Your task to perform on an android device: Clear all items from cart on bestbuy. Add "logitech g910" to the cart on bestbuy Image 0: 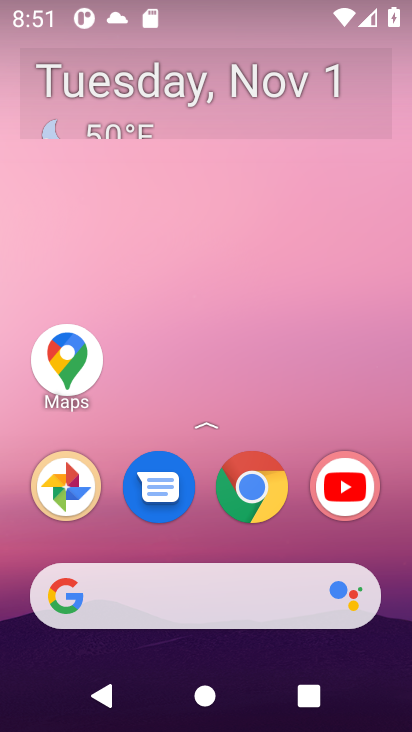
Step 0: drag from (206, 455) to (220, 37)
Your task to perform on an android device: Clear all items from cart on bestbuy. Add "logitech g910" to the cart on bestbuy Image 1: 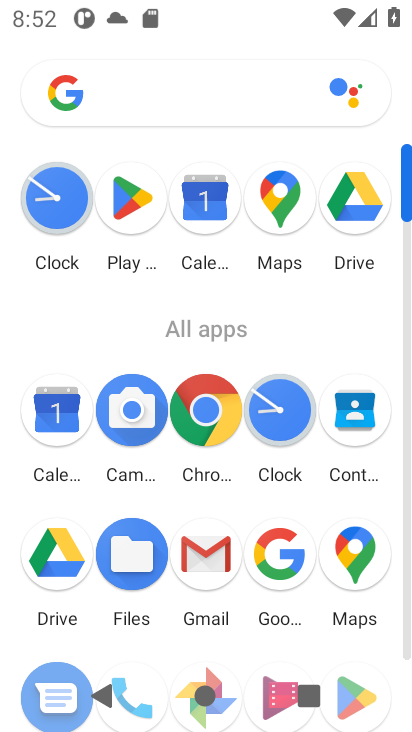
Step 1: click (198, 407)
Your task to perform on an android device: Clear all items from cart on bestbuy. Add "logitech g910" to the cart on bestbuy Image 2: 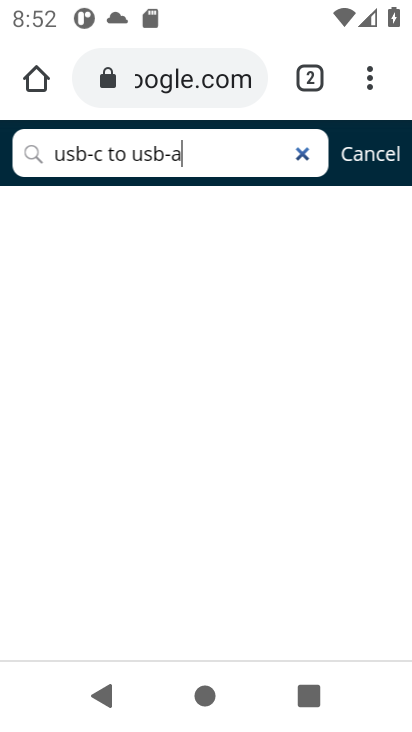
Step 2: click (209, 80)
Your task to perform on an android device: Clear all items from cart on bestbuy. Add "logitech g910" to the cart on bestbuy Image 3: 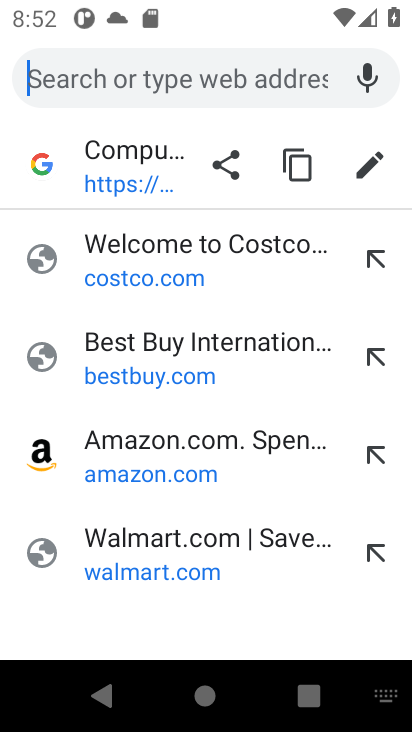
Step 3: click (91, 79)
Your task to perform on an android device: Clear all items from cart on bestbuy. Add "logitech g910" to the cart on bestbuy Image 4: 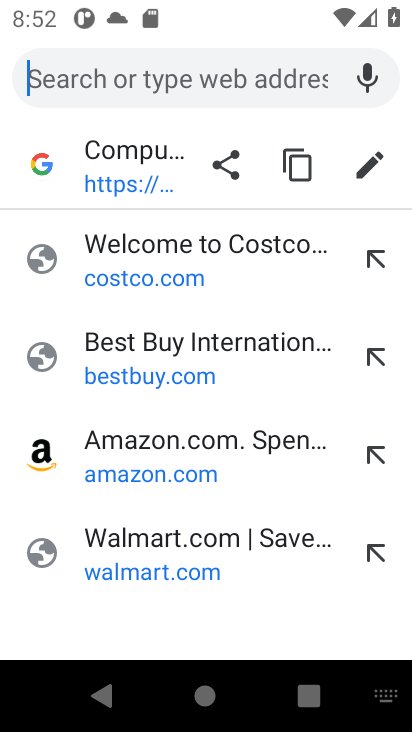
Step 4: type "bestbuy"
Your task to perform on an android device: Clear all items from cart on bestbuy. Add "logitech g910" to the cart on bestbuy Image 5: 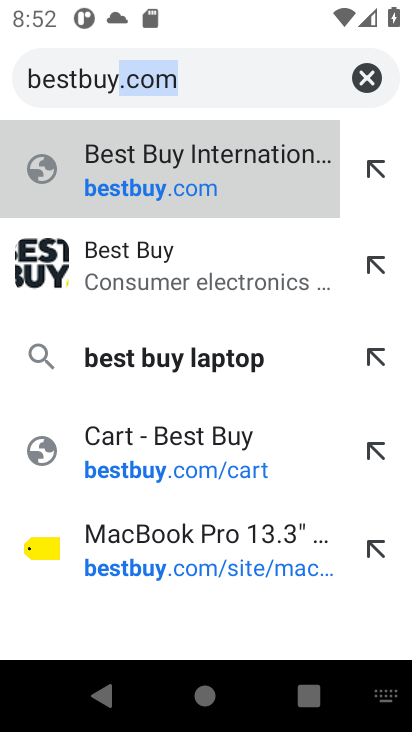
Step 5: click (185, 182)
Your task to perform on an android device: Clear all items from cart on bestbuy. Add "logitech g910" to the cart on bestbuy Image 6: 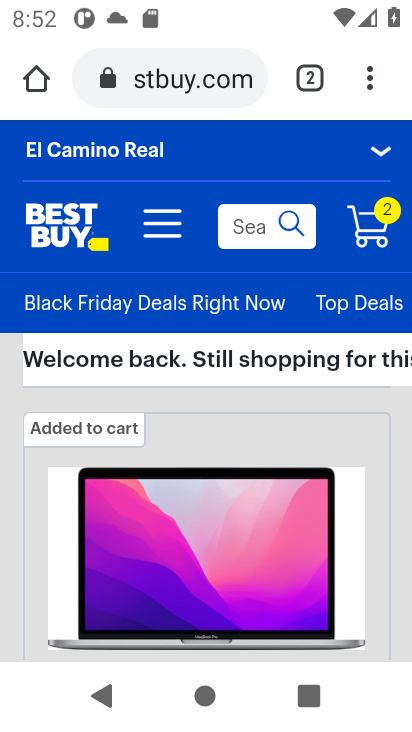
Step 6: drag from (238, 443) to (203, 101)
Your task to perform on an android device: Clear all items from cart on bestbuy. Add "logitech g910" to the cart on bestbuy Image 7: 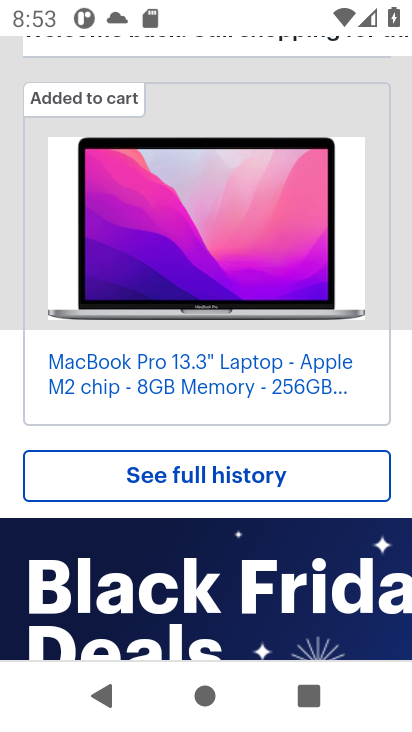
Step 7: drag from (229, 589) to (208, 339)
Your task to perform on an android device: Clear all items from cart on bestbuy. Add "logitech g910" to the cart on bestbuy Image 8: 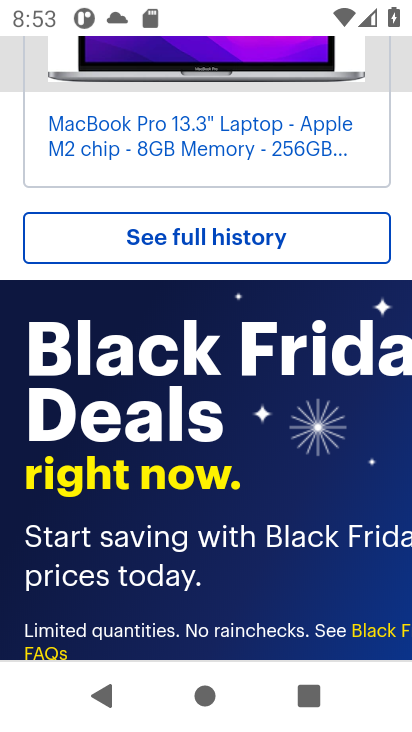
Step 8: drag from (244, 599) to (227, 315)
Your task to perform on an android device: Clear all items from cart on bestbuy. Add "logitech g910" to the cart on bestbuy Image 9: 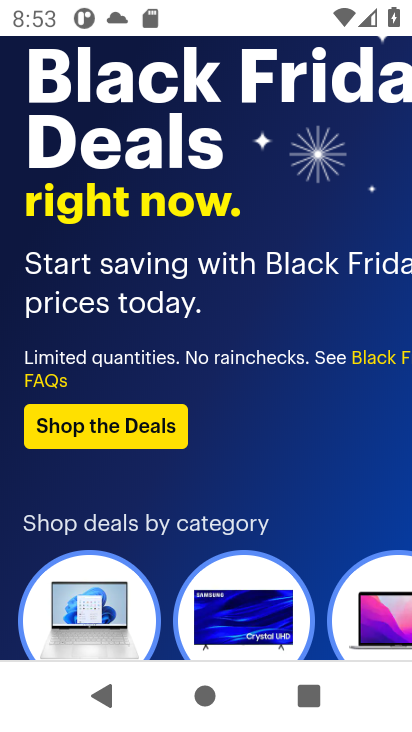
Step 9: drag from (219, 211) to (237, 682)
Your task to perform on an android device: Clear all items from cart on bestbuy. Add "logitech g910" to the cart on bestbuy Image 10: 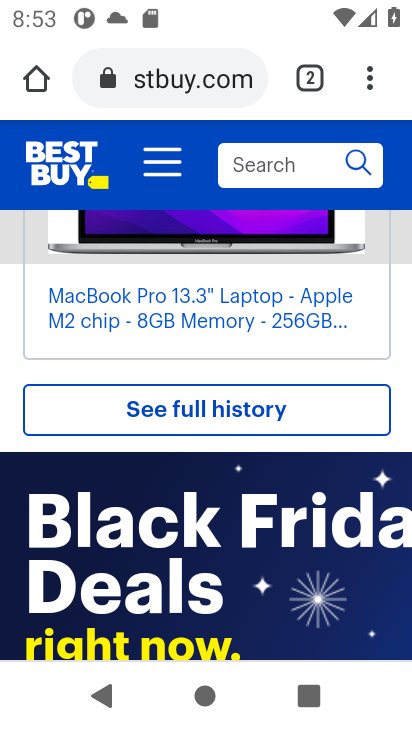
Step 10: click (277, 162)
Your task to perform on an android device: Clear all items from cart on bestbuy. Add "logitech g910" to the cart on bestbuy Image 11: 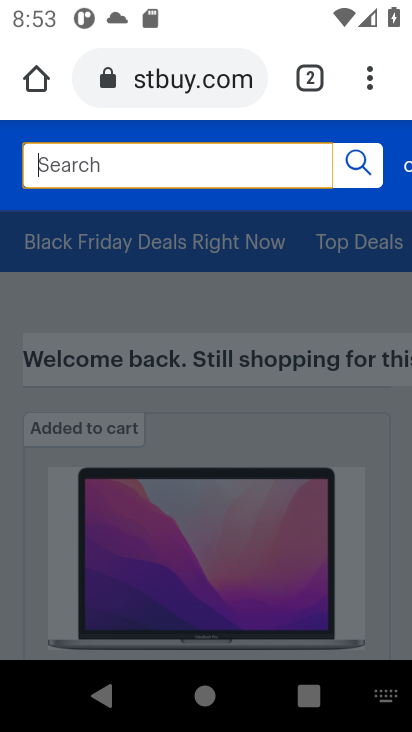
Step 11: click (102, 164)
Your task to perform on an android device: Clear all items from cart on bestbuy. Add "logitech g910" to the cart on bestbuy Image 12: 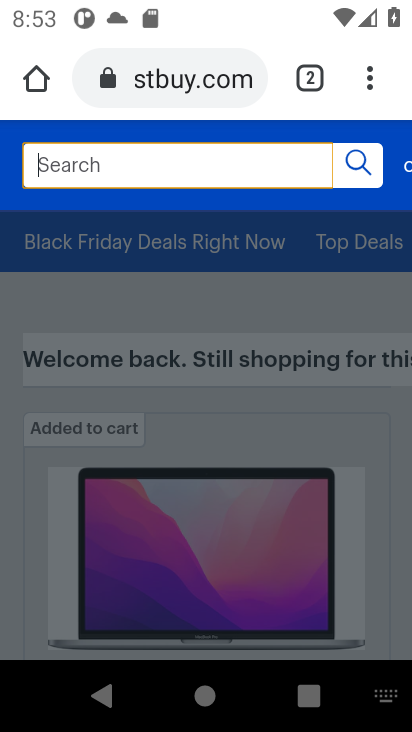
Step 12: type "logitech g910"
Your task to perform on an android device: Clear all items from cart on bestbuy. Add "logitech g910" to the cart on bestbuy Image 13: 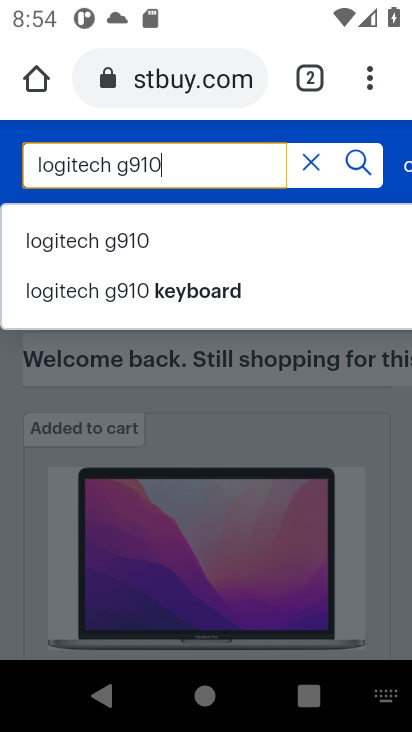
Step 13: click (121, 244)
Your task to perform on an android device: Clear all items from cart on bestbuy. Add "logitech g910" to the cart on bestbuy Image 14: 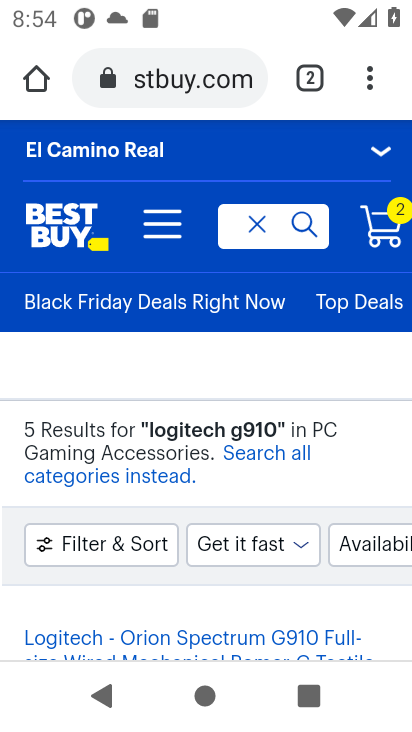
Step 14: drag from (188, 591) to (189, 293)
Your task to perform on an android device: Clear all items from cart on bestbuy. Add "logitech g910" to the cart on bestbuy Image 15: 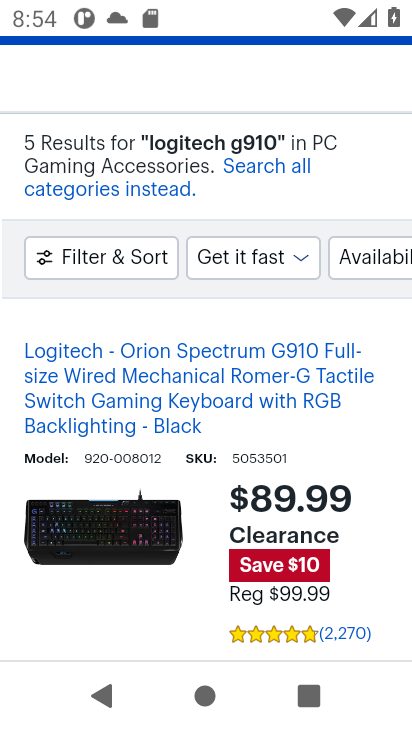
Step 15: click (200, 376)
Your task to perform on an android device: Clear all items from cart on bestbuy. Add "logitech g910" to the cart on bestbuy Image 16: 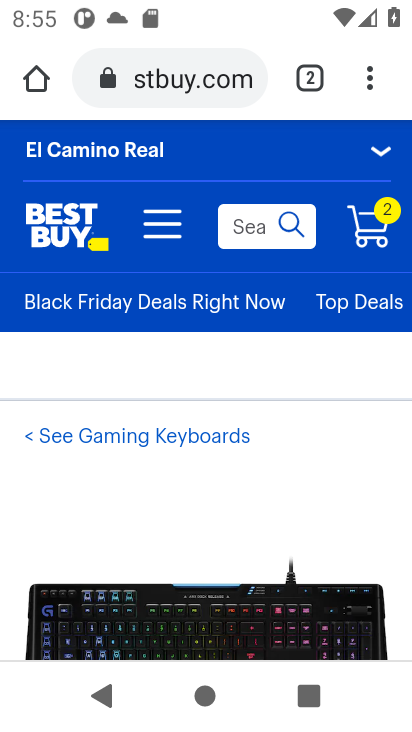
Step 16: drag from (208, 509) to (229, 203)
Your task to perform on an android device: Clear all items from cart on bestbuy. Add "logitech g910" to the cart on bestbuy Image 17: 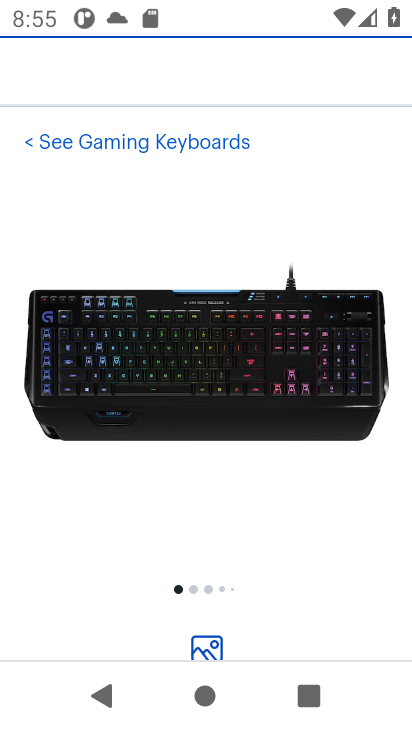
Step 17: drag from (254, 605) to (273, 369)
Your task to perform on an android device: Clear all items from cart on bestbuy. Add "logitech g910" to the cart on bestbuy Image 18: 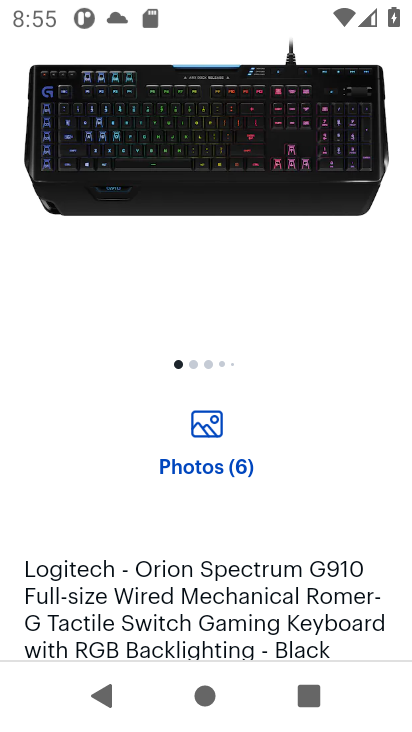
Step 18: drag from (254, 610) to (271, 195)
Your task to perform on an android device: Clear all items from cart on bestbuy. Add "logitech g910" to the cart on bestbuy Image 19: 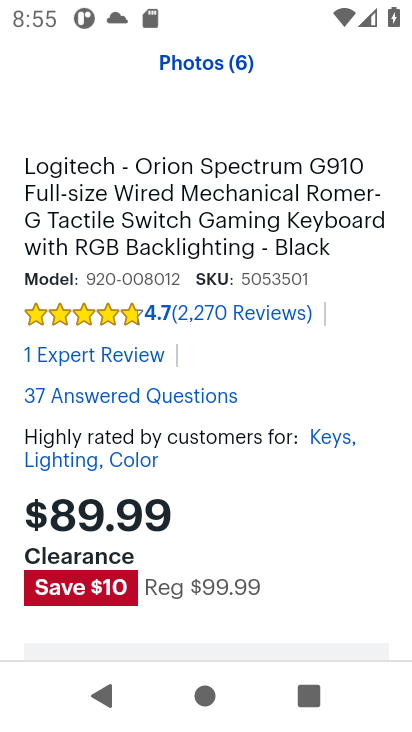
Step 19: drag from (223, 628) to (234, 242)
Your task to perform on an android device: Clear all items from cart on bestbuy. Add "logitech g910" to the cart on bestbuy Image 20: 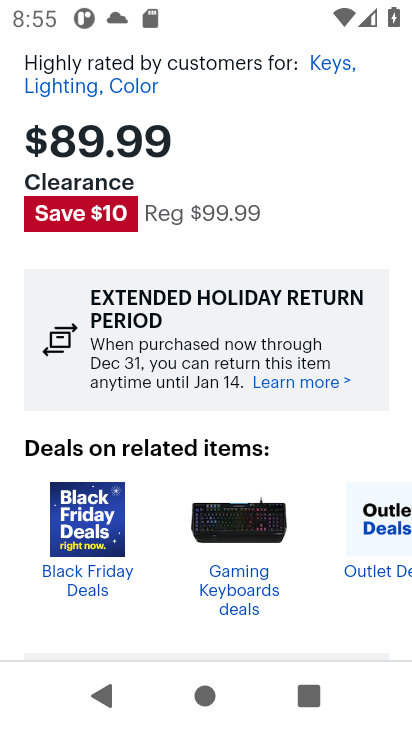
Step 20: drag from (163, 599) to (186, 220)
Your task to perform on an android device: Clear all items from cart on bestbuy. Add "logitech g910" to the cart on bestbuy Image 21: 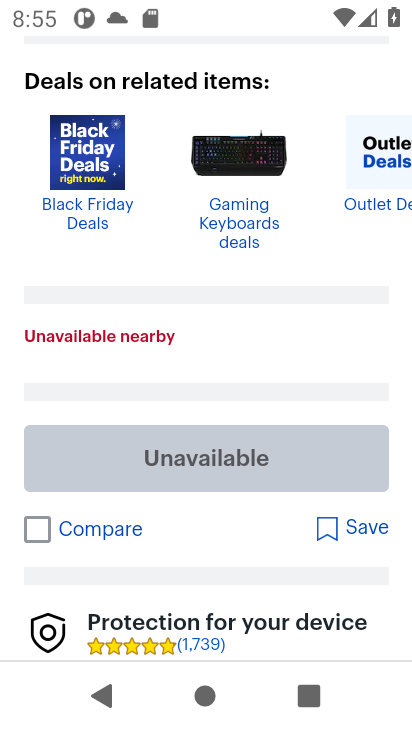
Step 21: press back button
Your task to perform on an android device: Clear all items from cart on bestbuy. Add "logitech g910" to the cart on bestbuy Image 22: 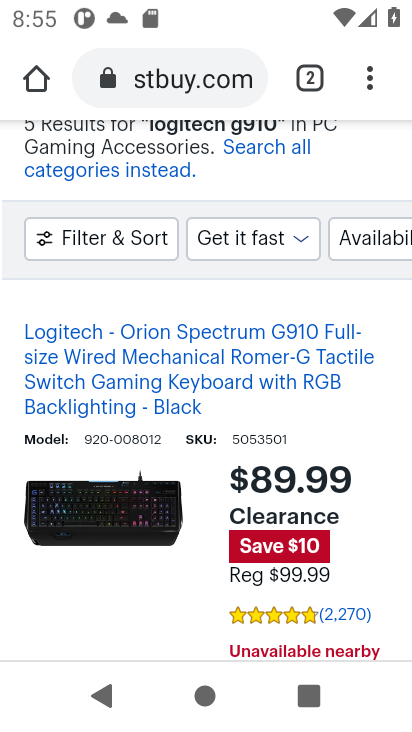
Step 22: drag from (184, 510) to (180, 169)
Your task to perform on an android device: Clear all items from cart on bestbuy. Add "logitech g910" to the cart on bestbuy Image 23: 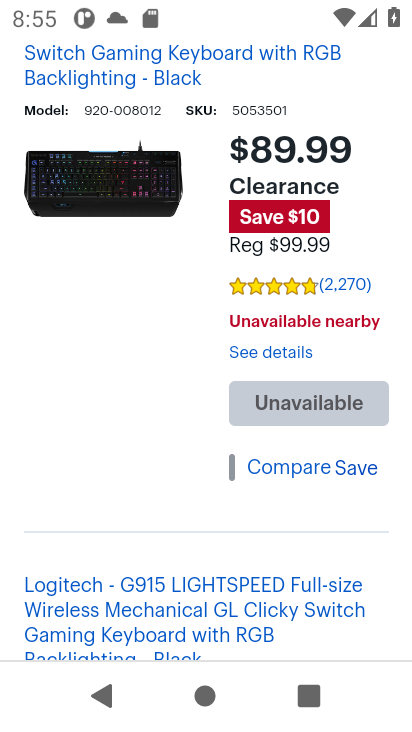
Step 23: drag from (188, 564) to (182, 202)
Your task to perform on an android device: Clear all items from cart on bestbuy. Add "logitech g910" to the cart on bestbuy Image 24: 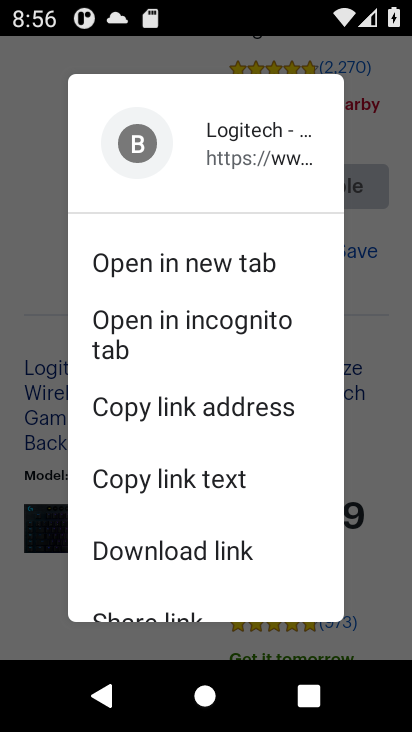
Step 24: click (40, 275)
Your task to perform on an android device: Clear all items from cart on bestbuy. Add "logitech g910" to the cart on bestbuy Image 25: 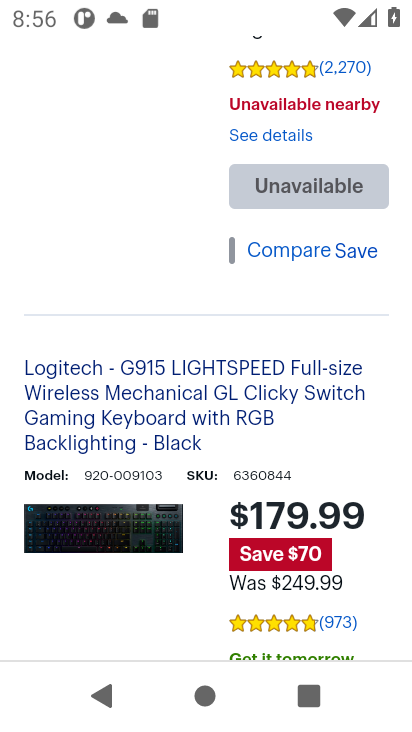
Step 25: drag from (178, 595) to (197, 331)
Your task to perform on an android device: Clear all items from cart on bestbuy. Add "logitech g910" to the cart on bestbuy Image 26: 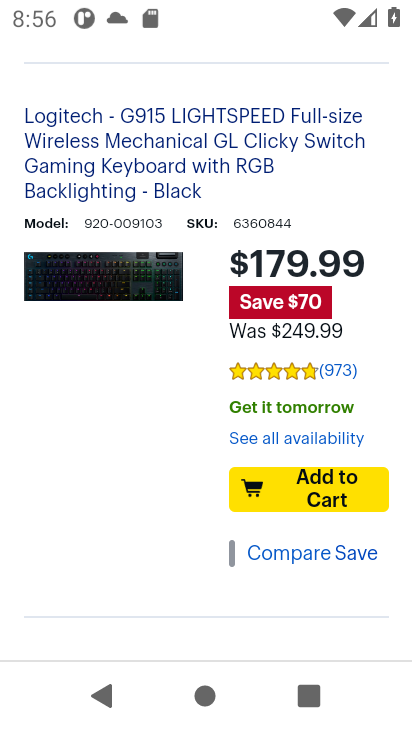
Step 26: click (279, 505)
Your task to perform on an android device: Clear all items from cart on bestbuy. Add "logitech g910" to the cart on bestbuy Image 27: 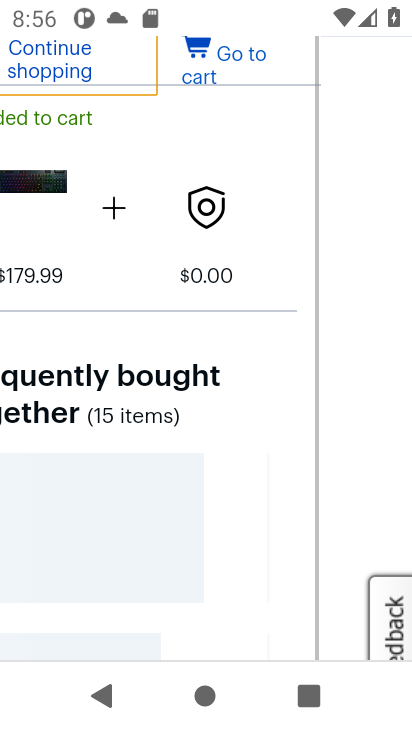
Step 27: click (233, 49)
Your task to perform on an android device: Clear all items from cart on bestbuy. Add "logitech g910" to the cart on bestbuy Image 28: 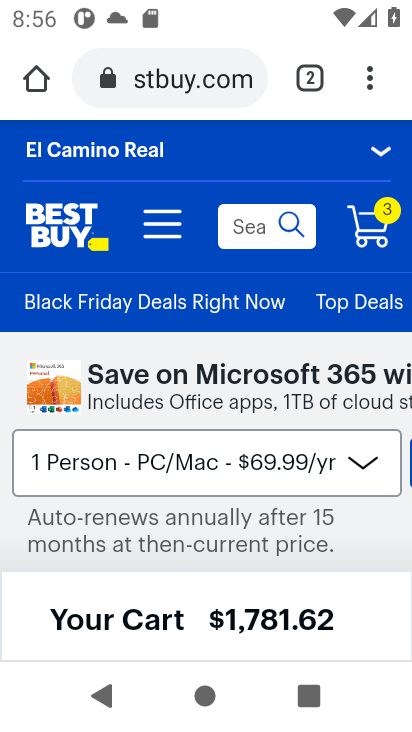
Step 28: click (382, 225)
Your task to perform on an android device: Clear all items from cart on bestbuy. Add "logitech g910" to the cart on bestbuy Image 29: 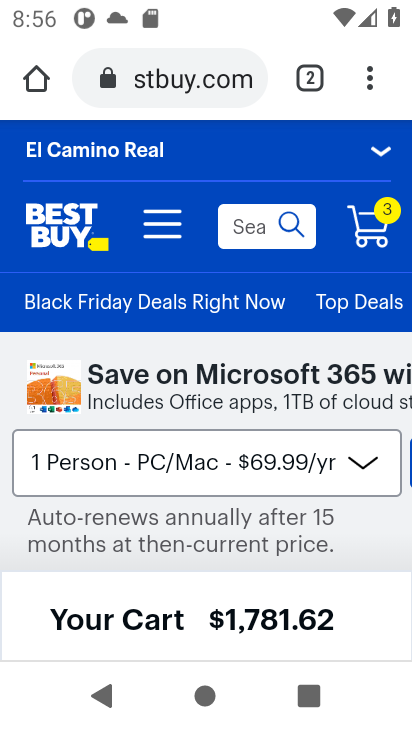
Step 29: task complete